Your task to perform on an android device: Open the Play Movies app and select the watchlist tab. Image 0: 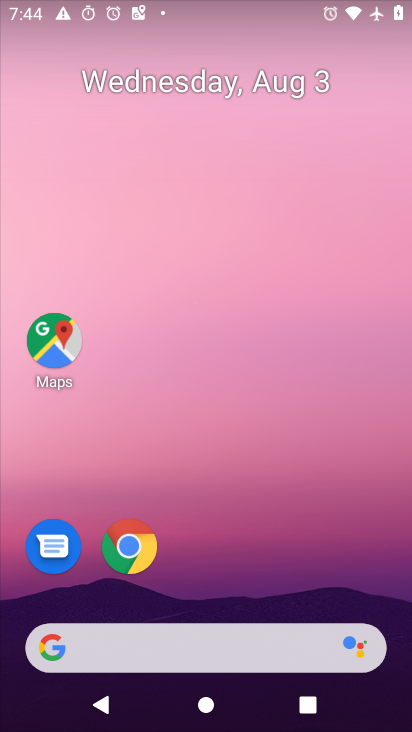
Step 0: press home button
Your task to perform on an android device: Open the Play Movies app and select the watchlist tab. Image 1: 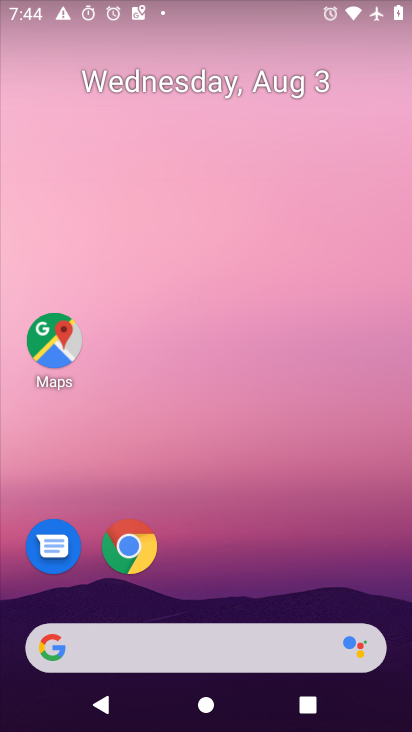
Step 1: drag from (255, 543) to (265, 175)
Your task to perform on an android device: Open the Play Movies app and select the watchlist tab. Image 2: 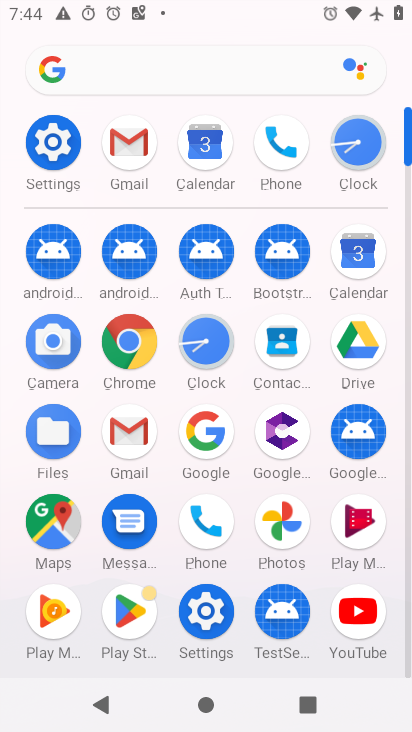
Step 2: click (352, 530)
Your task to perform on an android device: Open the Play Movies app and select the watchlist tab. Image 3: 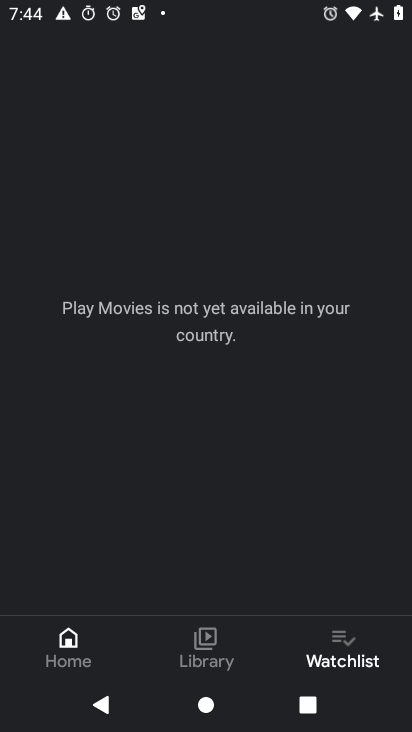
Step 3: click (337, 645)
Your task to perform on an android device: Open the Play Movies app and select the watchlist tab. Image 4: 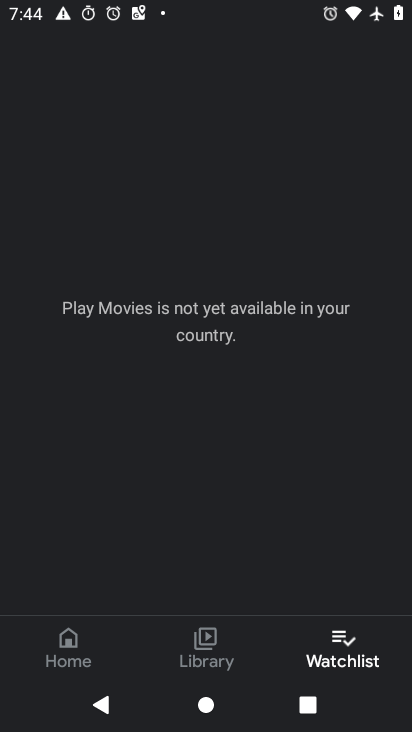
Step 4: task complete